Your task to perform on an android device: Open the calendar app, open the side menu, and click the "Day" option Image 0: 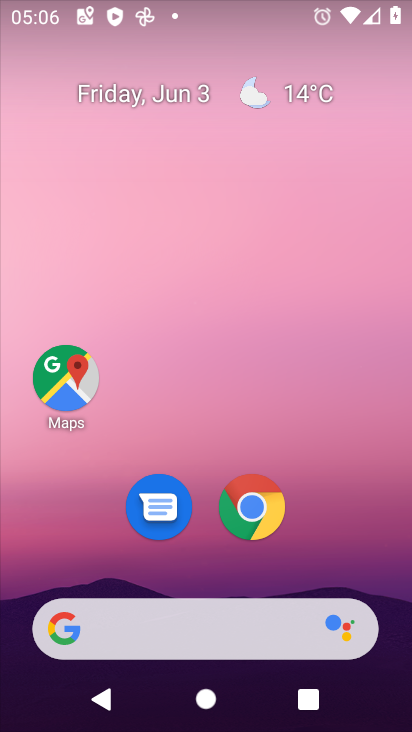
Step 0: press home button
Your task to perform on an android device: Open the calendar app, open the side menu, and click the "Day" option Image 1: 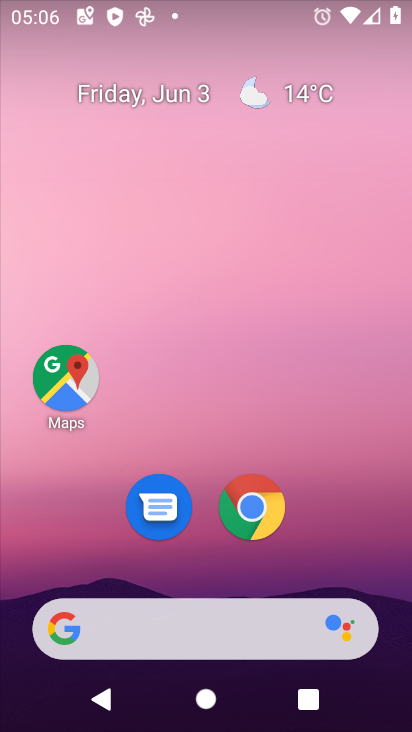
Step 1: drag from (333, 509) to (291, 106)
Your task to perform on an android device: Open the calendar app, open the side menu, and click the "Day" option Image 2: 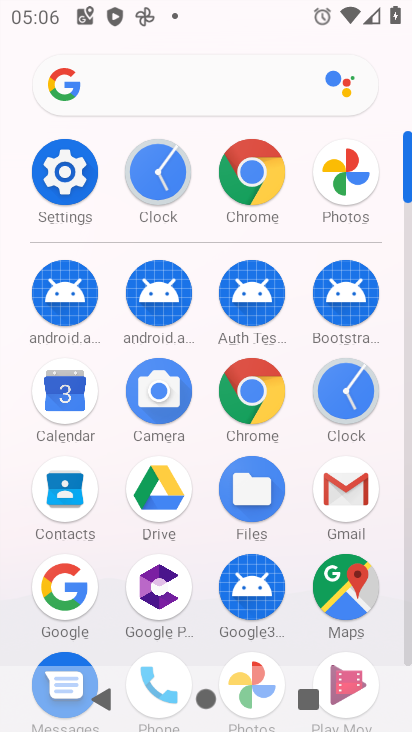
Step 2: click (61, 396)
Your task to perform on an android device: Open the calendar app, open the side menu, and click the "Day" option Image 3: 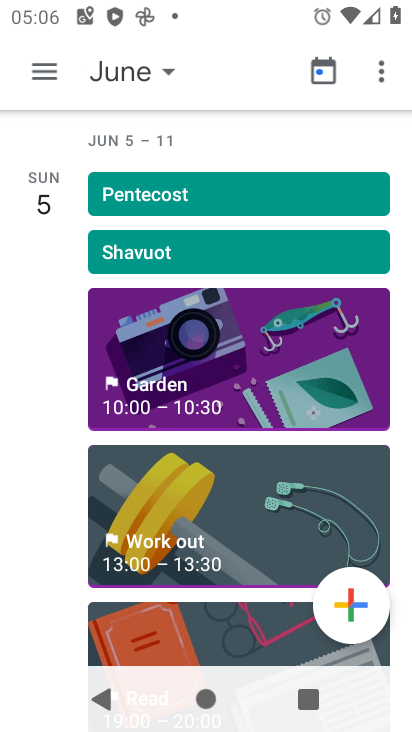
Step 3: click (52, 73)
Your task to perform on an android device: Open the calendar app, open the side menu, and click the "Day" option Image 4: 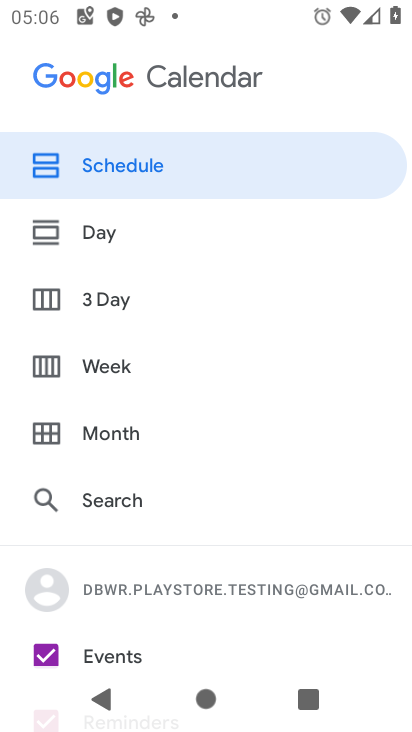
Step 4: click (57, 236)
Your task to perform on an android device: Open the calendar app, open the side menu, and click the "Day" option Image 5: 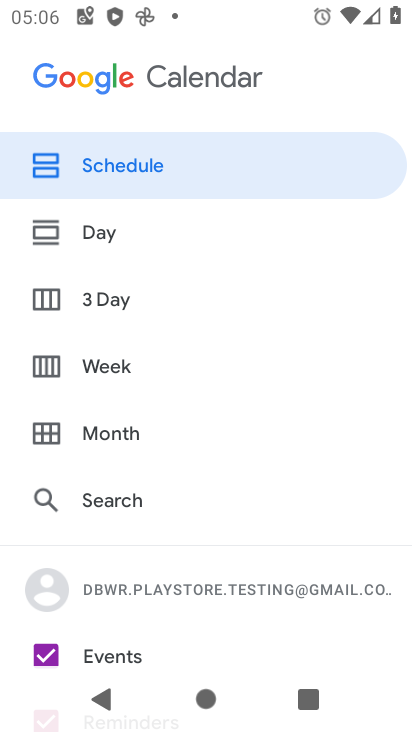
Step 5: task complete